Your task to perform on an android device: Open settings Image 0: 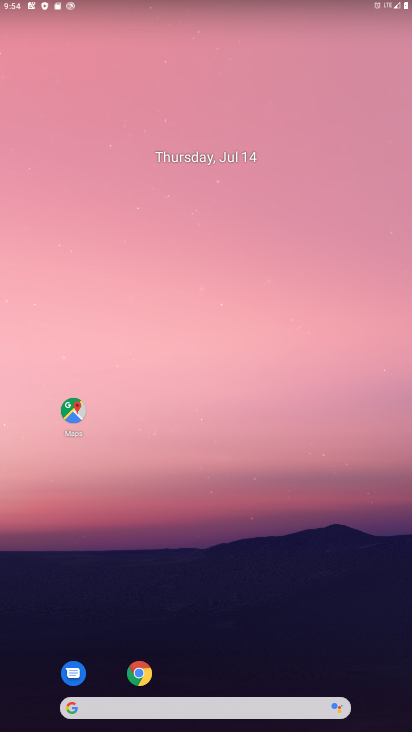
Step 0: drag from (185, 711) to (221, 283)
Your task to perform on an android device: Open settings Image 1: 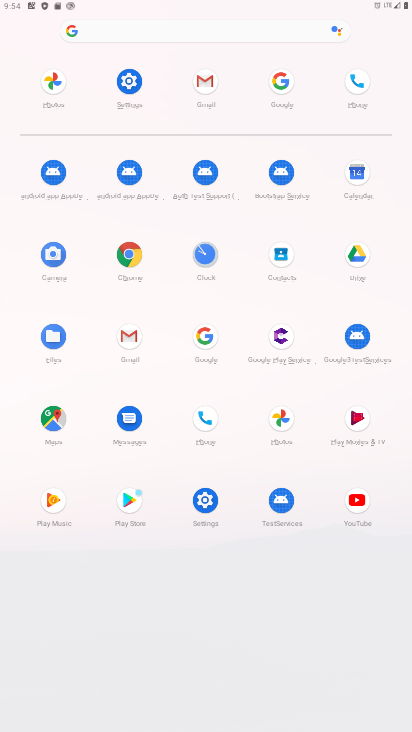
Step 1: click (205, 501)
Your task to perform on an android device: Open settings Image 2: 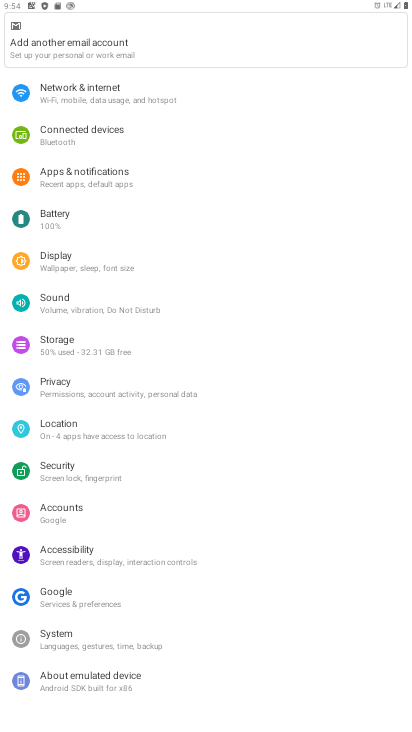
Step 2: task complete